Your task to perform on an android device: Open internet settings Image 0: 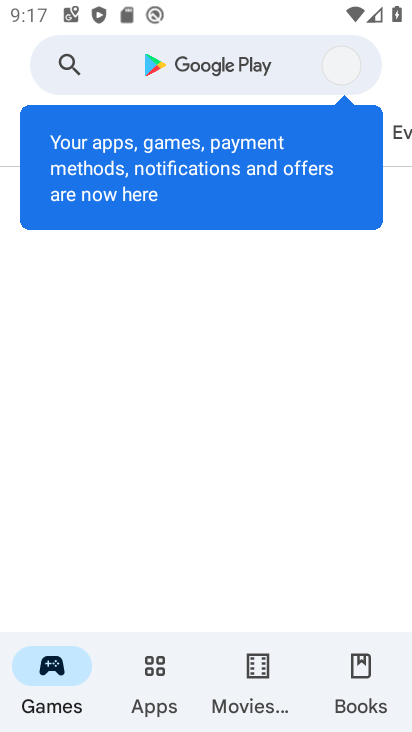
Step 0: press home button
Your task to perform on an android device: Open internet settings Image 1: 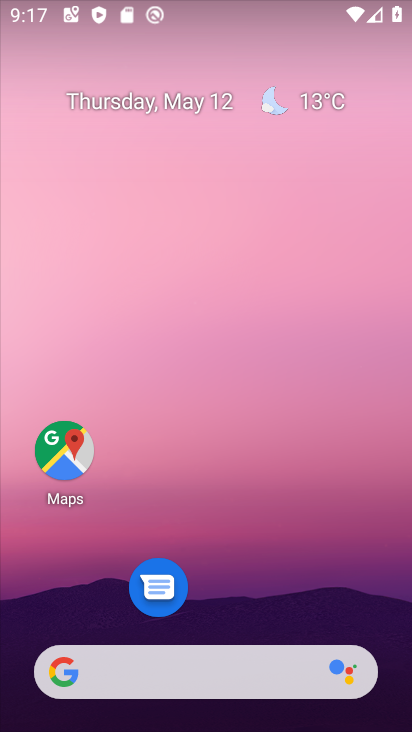
Step 1: drag from (231, 634) to (243, 0)
Your task to perform on an android device: Open internet settings Image 2: 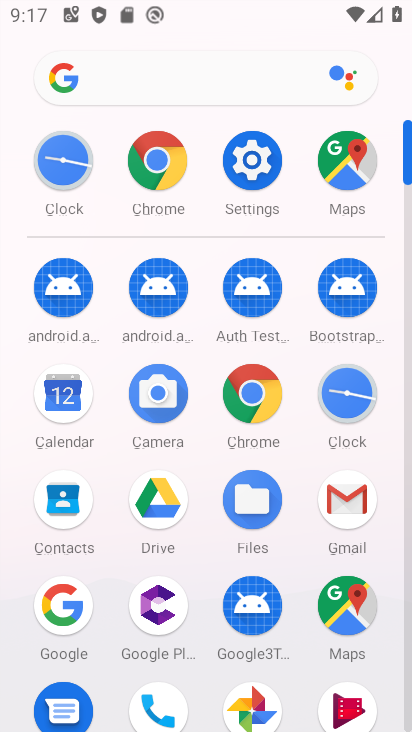
Step 2: click (266, 151)
Your task to perform on an android device: Open internet settings Image 3: 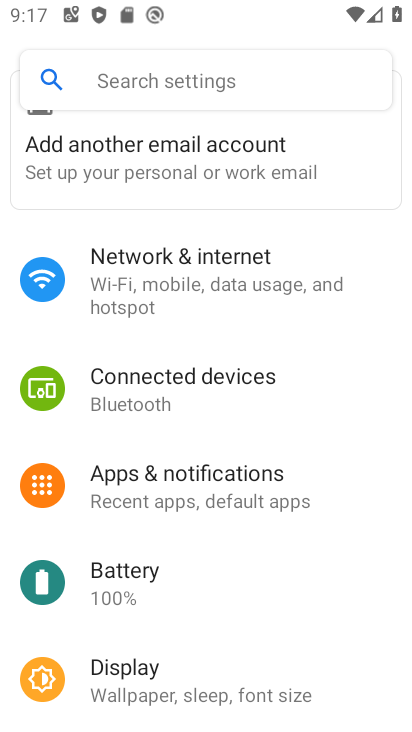
Step 3: click (175, 295)
Your task to perform on an android device: Open internet settings Image 4: 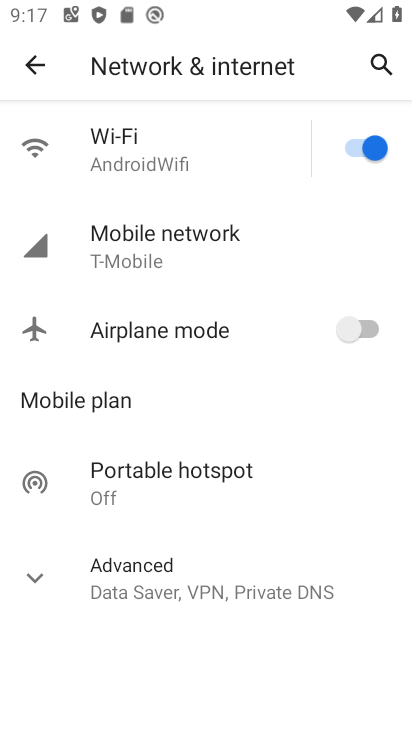
Step 4: click (177, 268)
Your task to perform on an android device: Open internet settings Image 5: 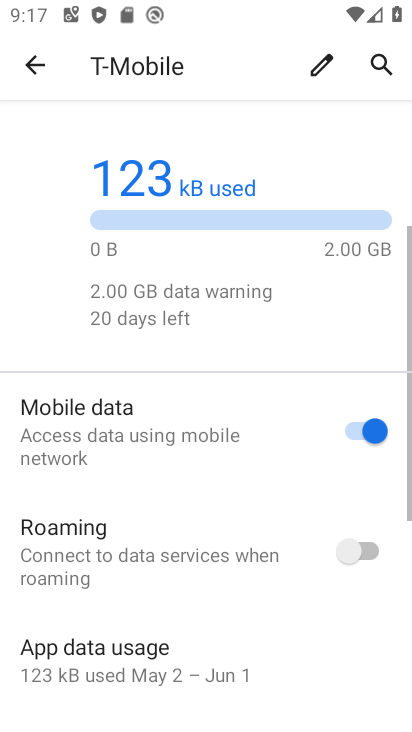
Step 5: task complete